Your task to perform on an android device: Do I have any events tomorrow? Image 0: 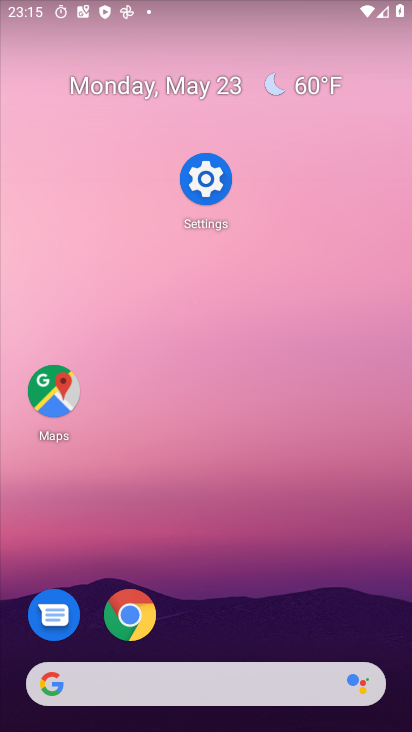
Step 0: drag from (194, 595) to (235, 83)
Your task to perform on an android device: Do I have any events tomorrow? Image 1: 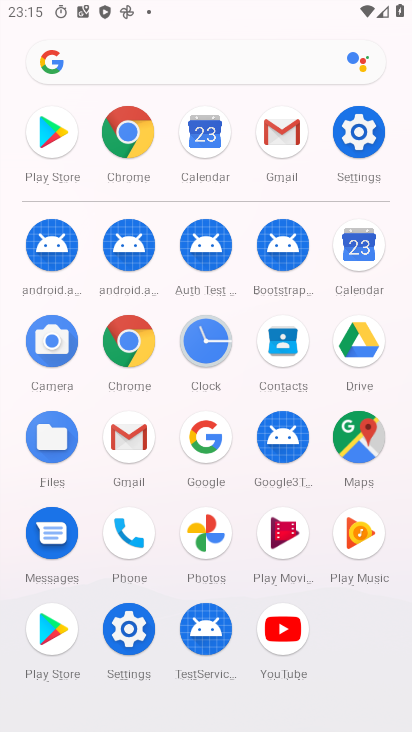
Step 1: click (357, 247)
Your task to perform on an android device: Do I have any events tomorrow? Image 2: 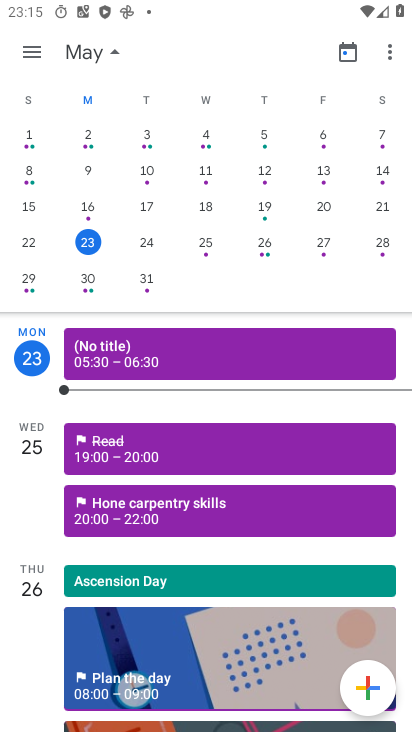
Step 2: click (146, 241)
Your task to perform on an android device: Do I have any events tomorrow? Image 3: 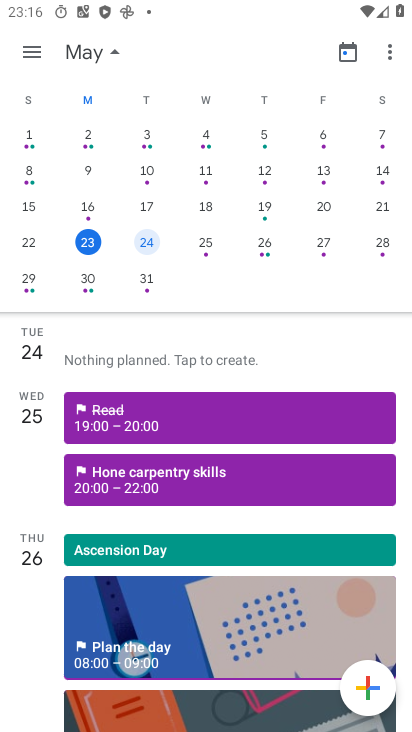
Step 3: task complete